Your task to perform on an android device: choose inbox layout in the gmail app Image 0: 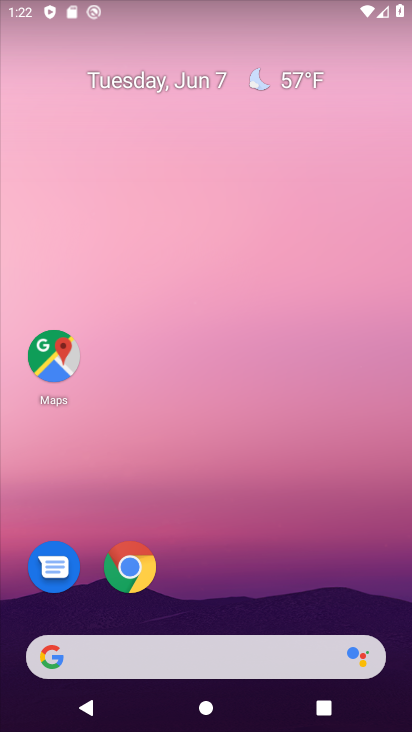
Step 0: drag from (219, 183) to (212, 48)
Your task to perform on an android device: choose inbox layout in the gmail app Image 1: 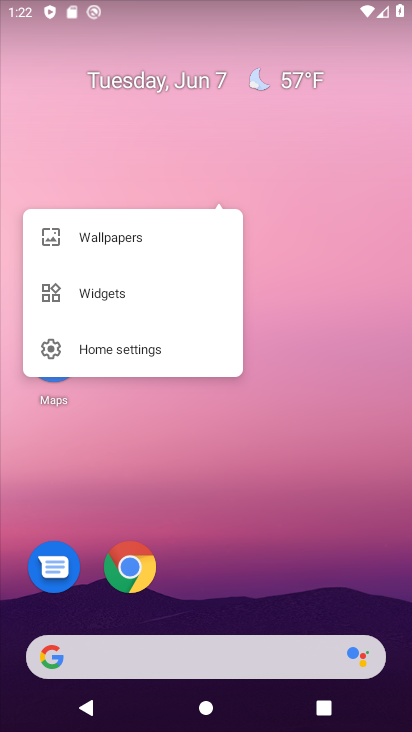
Step 1: drag from (228, 543) to (285, 159)
Your task to perform on an android device: choose inbox layout in the gmail app Image 2: 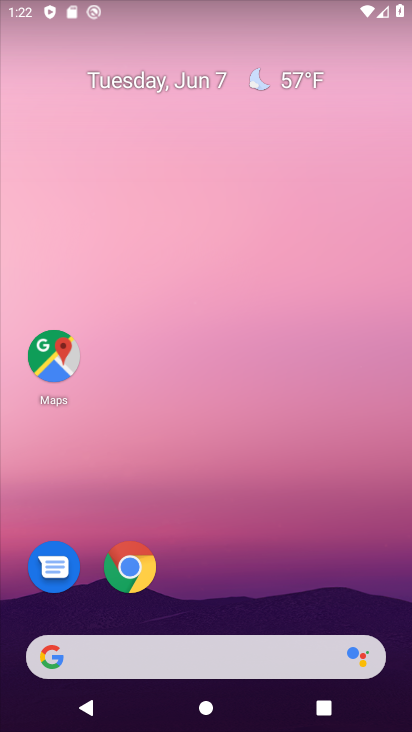
Step 2: drag from (204, 263) to (204, 93)
Your task to perform on an android device: choose inbox layout in the gmail app Image 3: 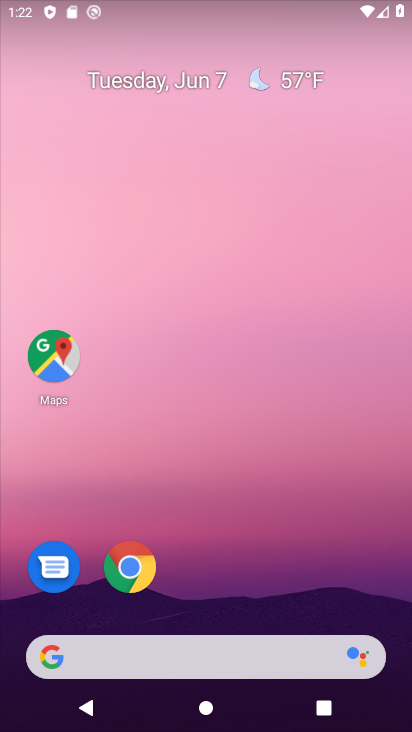
Step 3: drag from (238, 600) to (236, 77)
Your task to perform on an android device: choose inbox layout in the gmail app Image 4: 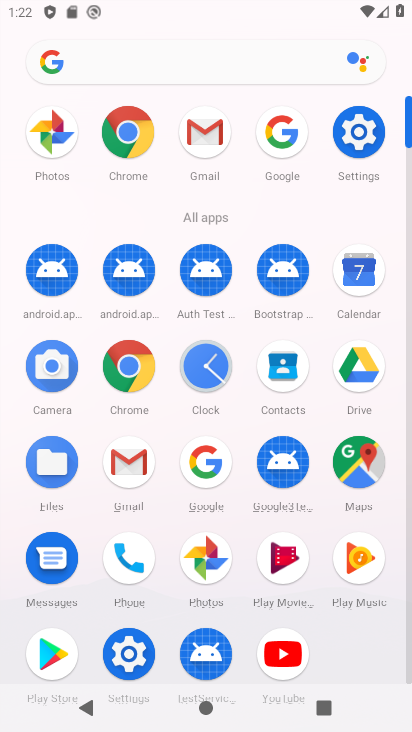
Step 4: click (200, 135)
Your task to perform on an android device: choose inbox layout in the gmail app Image 5: 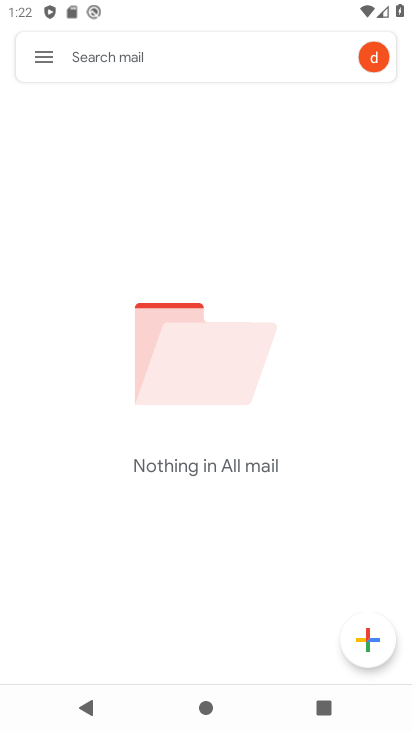
Step 5: click (42, 51)
Your task to perform on an android device: choose inbox layout in the gmail app Image 6: 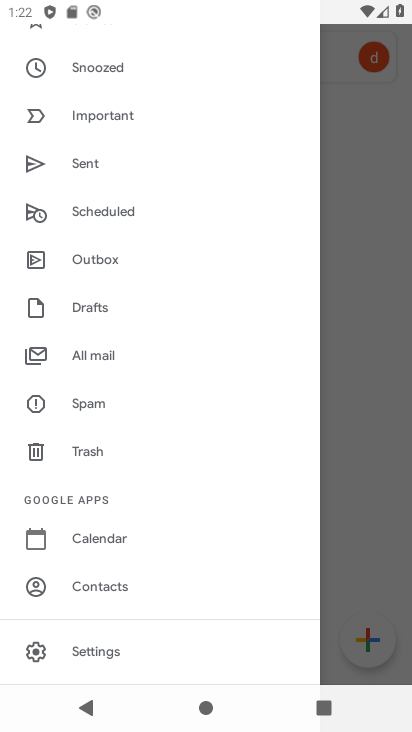
Step 6: click (116, 650)
Your task to perform on an android device: choose inbox layout in the gmail app Image 7: 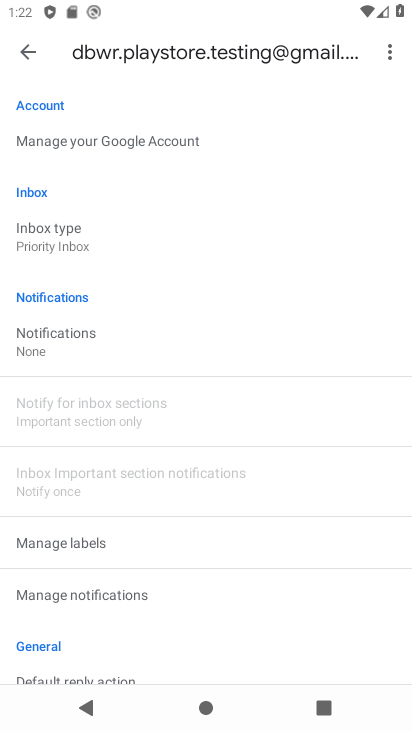
Step 7: click (72, 235)
Your task to perform on an android device: choose inbox layout in the gmail app Image 8: 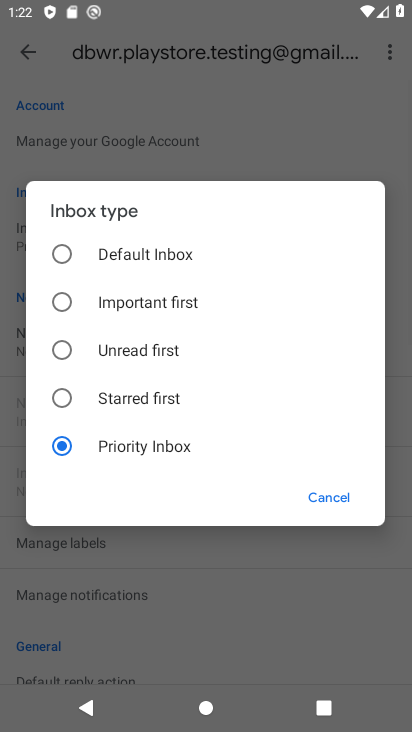
Step 8: click (62, 255)
Your task to perform on an android device: choose inbox layout in the gmail app Image 9: 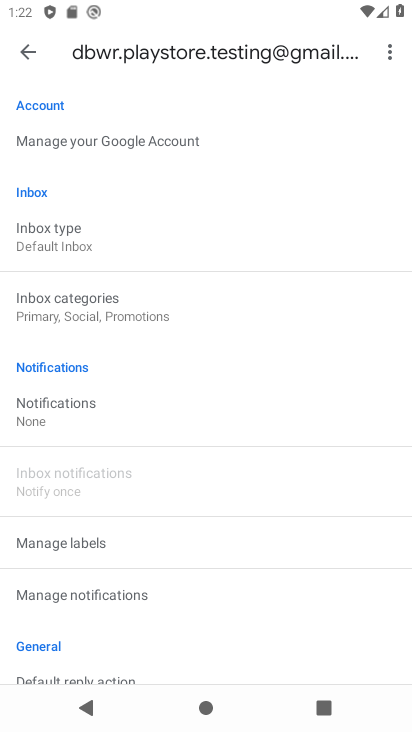
Step 9: task complete